Your task to perform on an android device: Go to display settings Image 0: 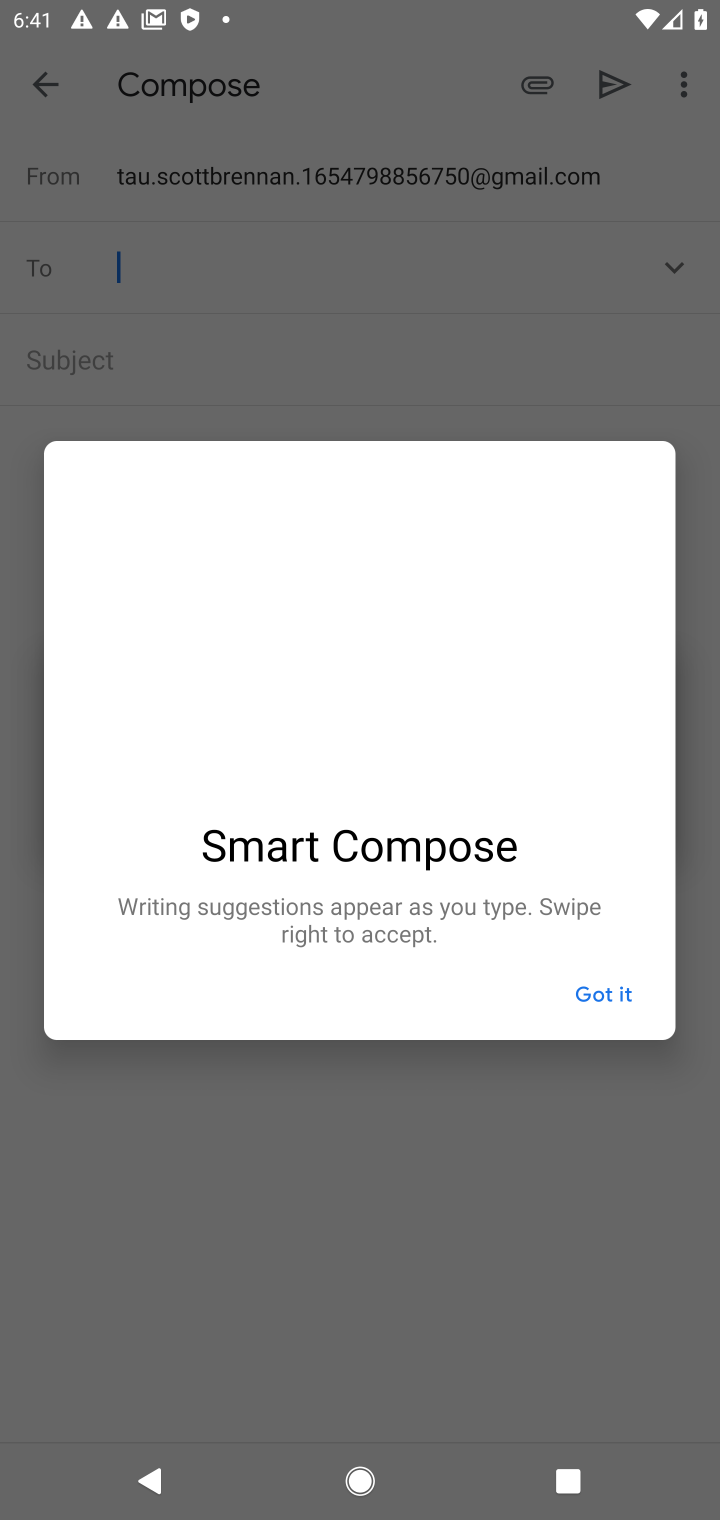
Step 0: press home button
Your task to perform on an android device: Go to display settings Image 1: 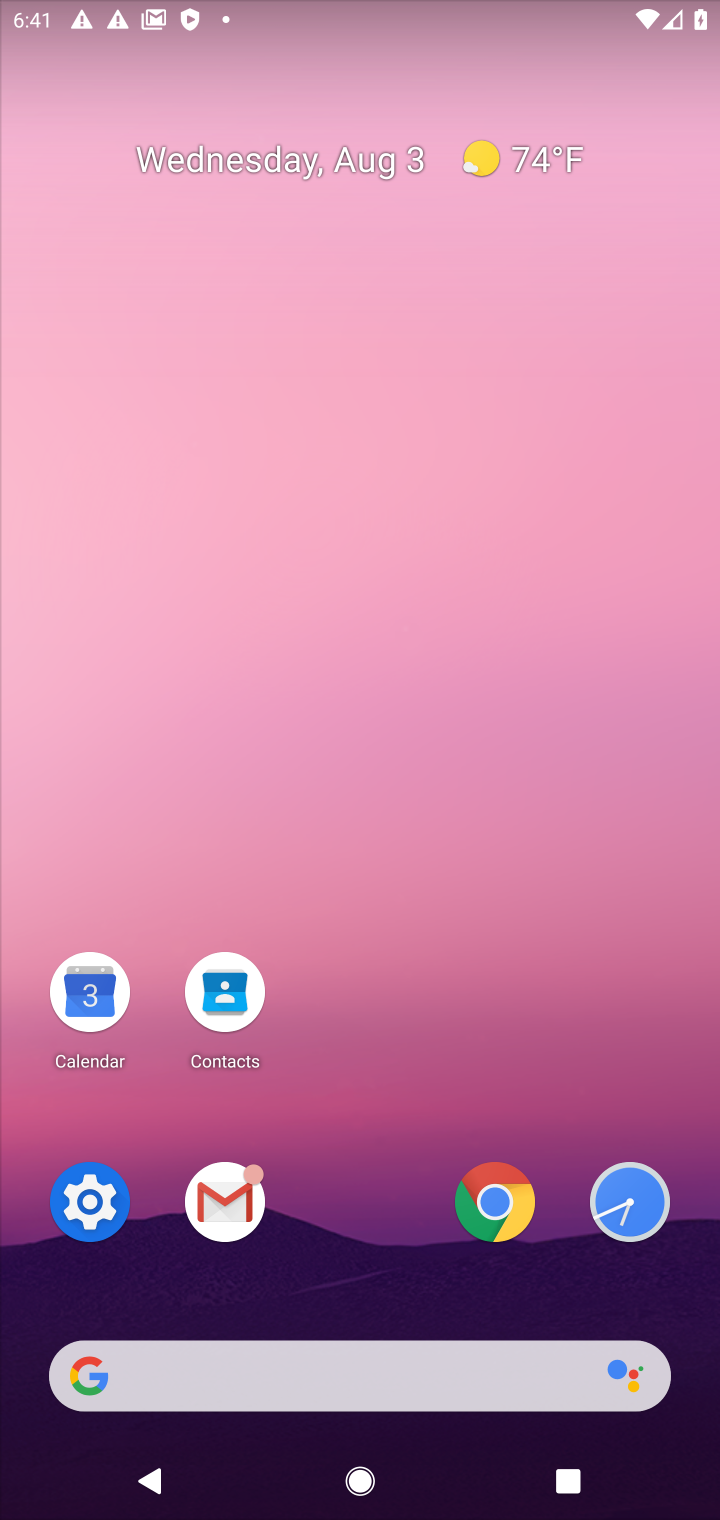
Step 1: click (86, 1192)
Your task to perform on an android device: Go to display settings Image 2: 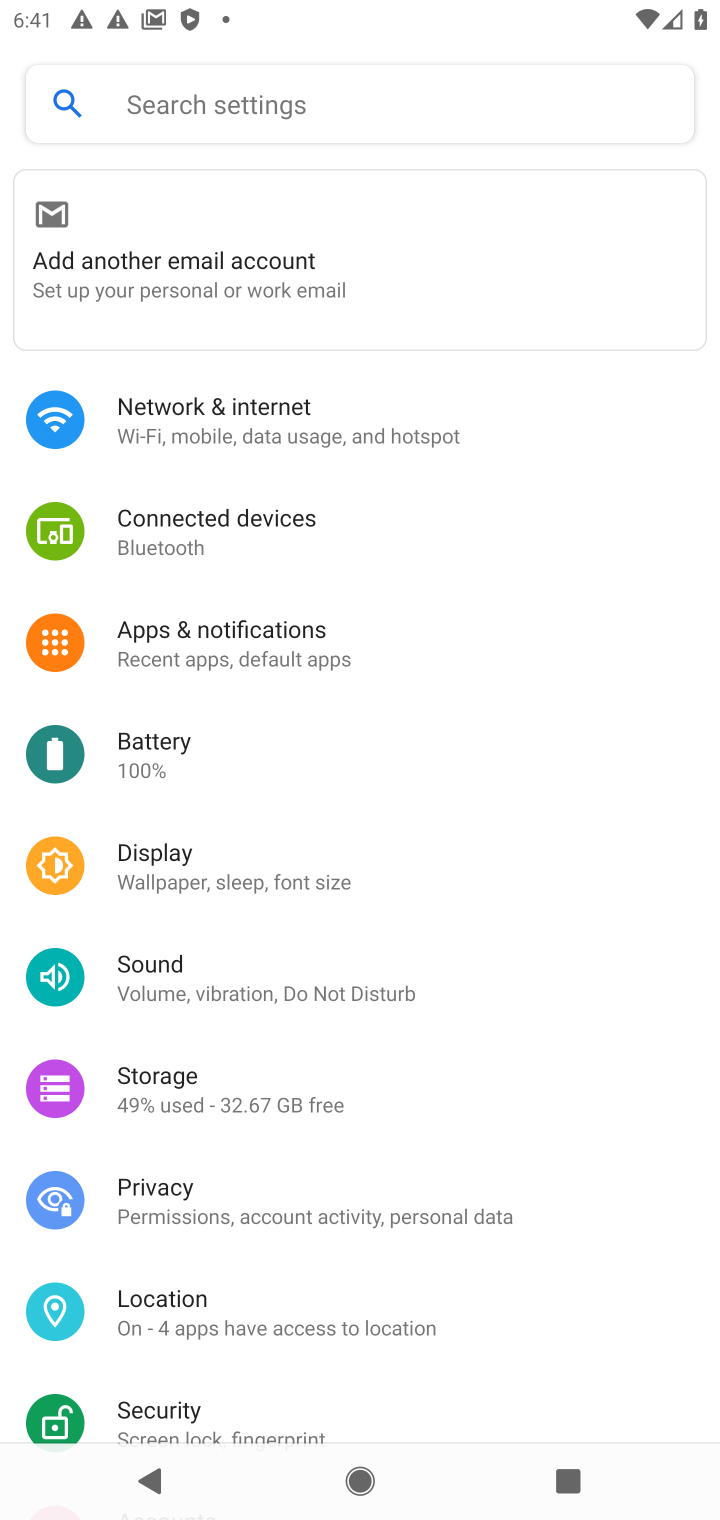
Step 2: click (161, 854)
Your task to perform on an android device: Go to display settings Image 3: 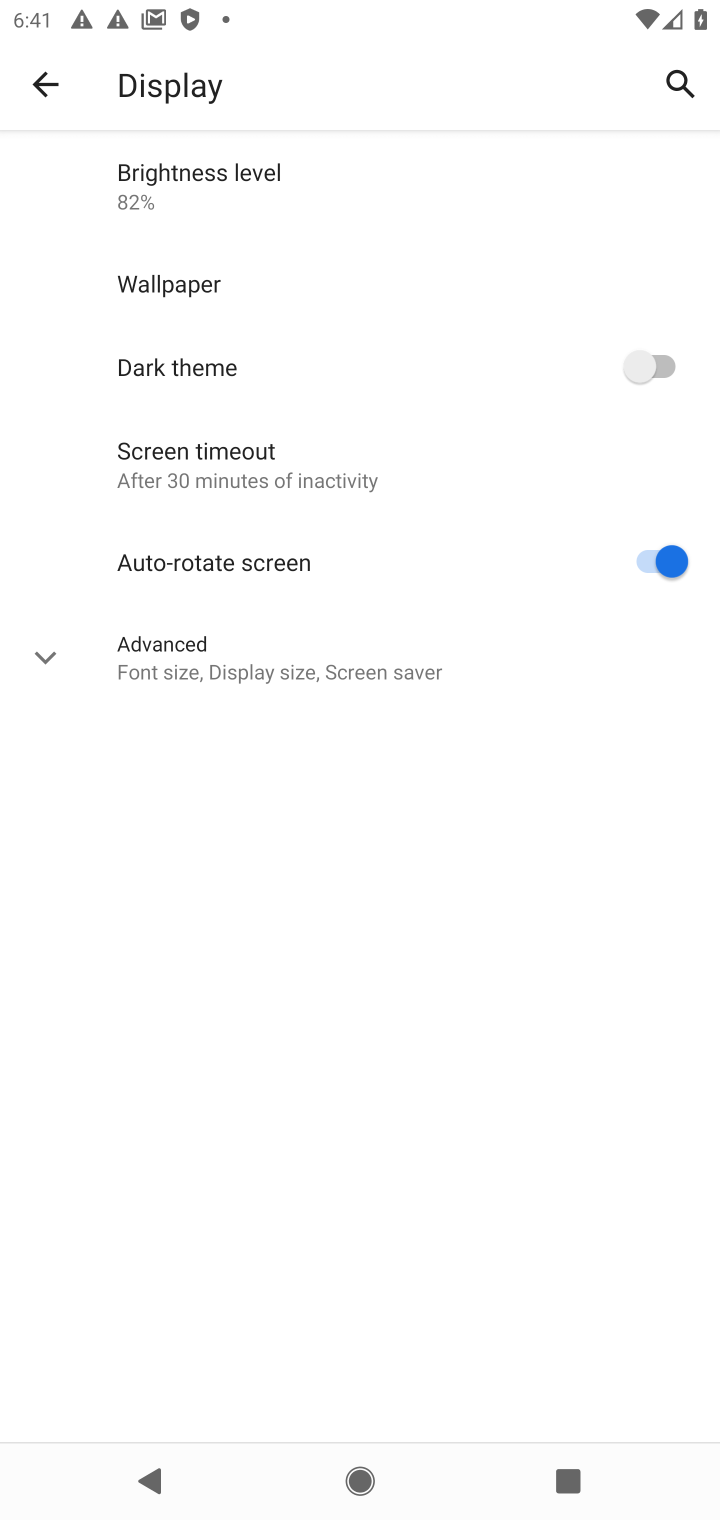
Step 3: task complete